Your task to perform on an android device: Open accessibility settings Image 0: 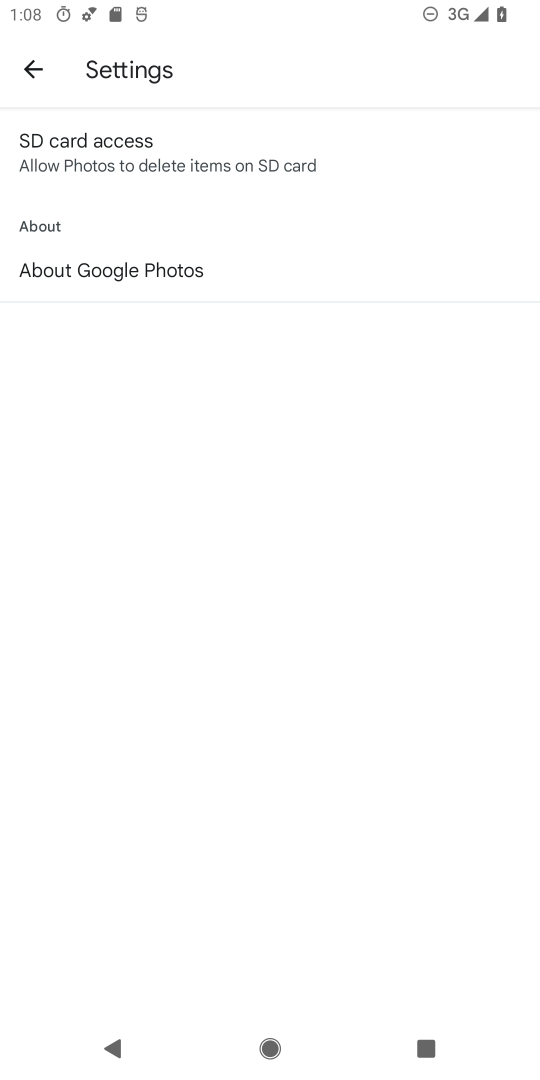
Step 0: press home button
Your task to perform on an android device: Open accessibility settings Image 1: 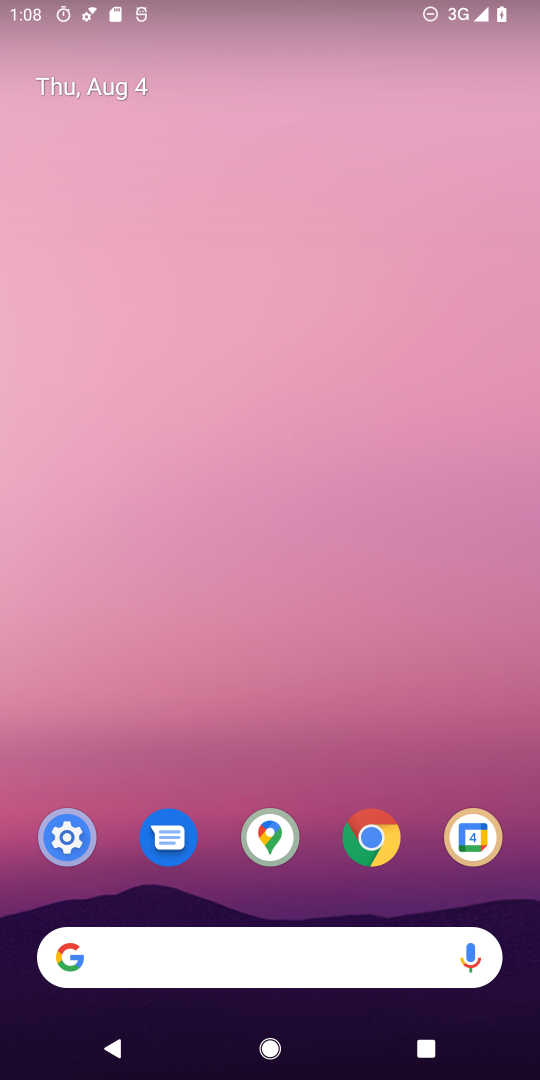
Step 1: drag from (502, 933) to (284, 49)
Your task to perform on an android device: Open accessibility settings Image 2: 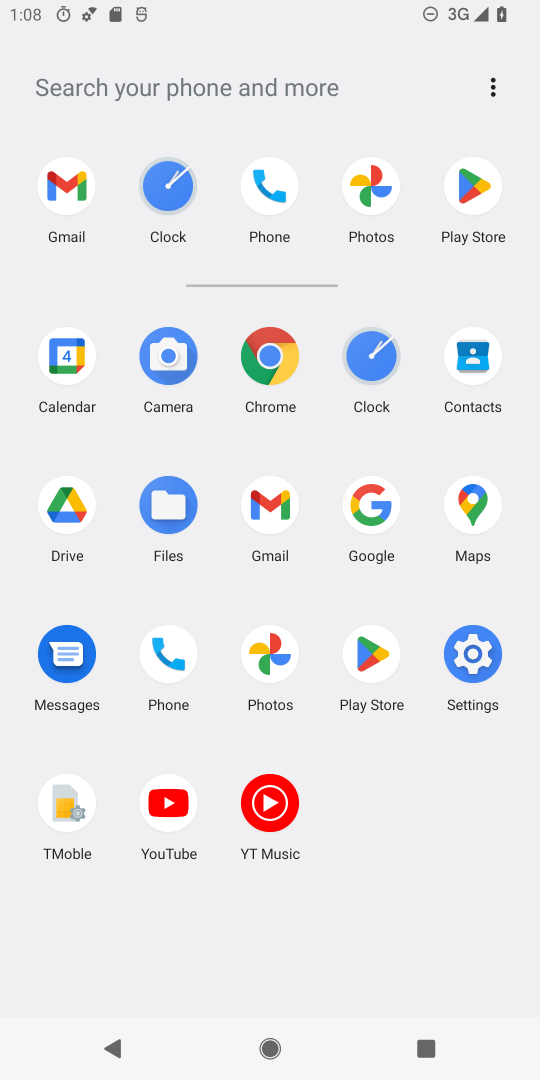
Step 2: click (482, 681)
Your task to perform on an android device: Open accessibility settings Image 3: 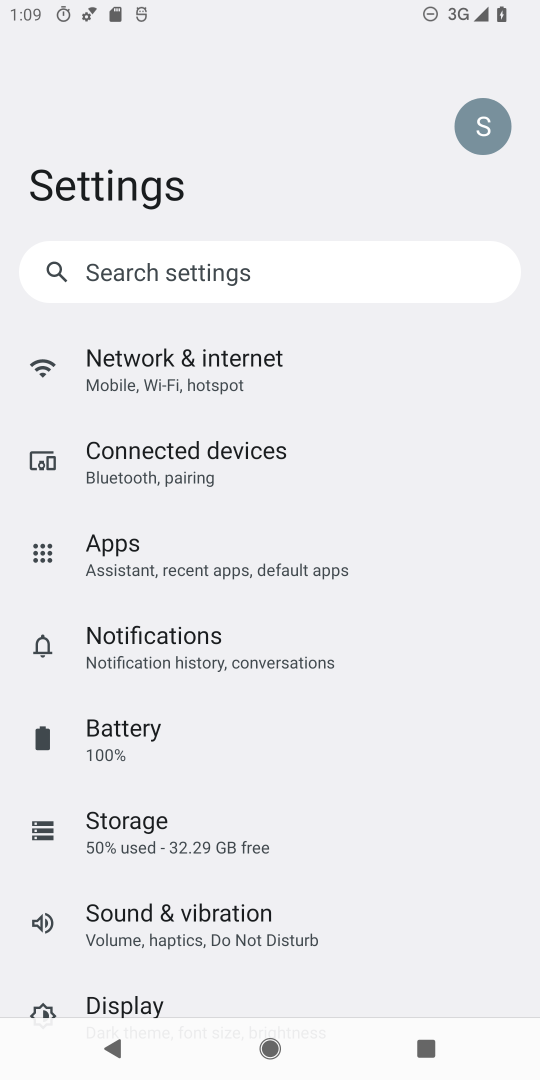
Step 3: drag from (261, 954) to (296, 133)
Your task to perform on an android device: Open accessibility settings Image 4: 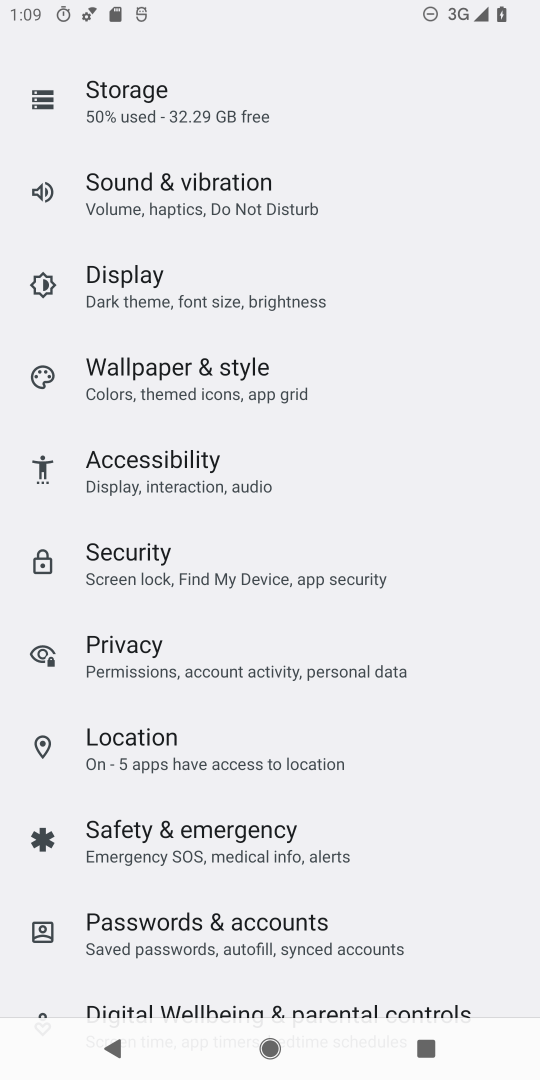
Step 4: click (207, 476)
Your task to perform on an android device: Open accessibility settings Image 5: 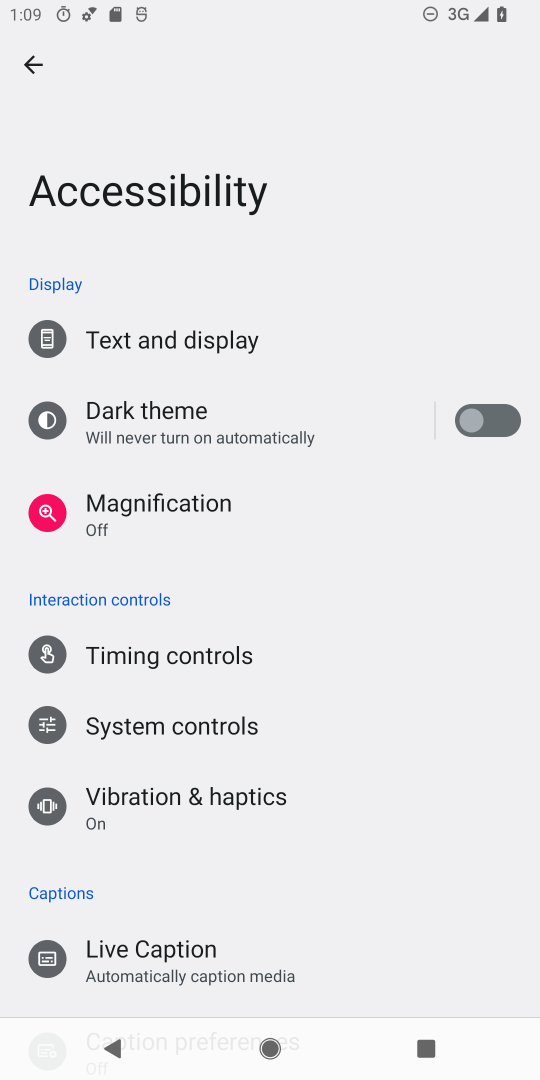
Step 5: task complete